Your task to perform on an android device: turn on wifi Image 0: 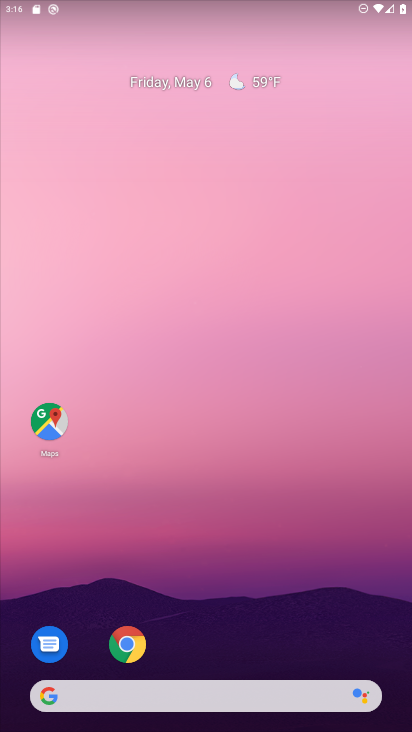
Step 0: drag from (219, 726) to (202, 25)
Your task to perform on an android device: turn on wifi Image 1: 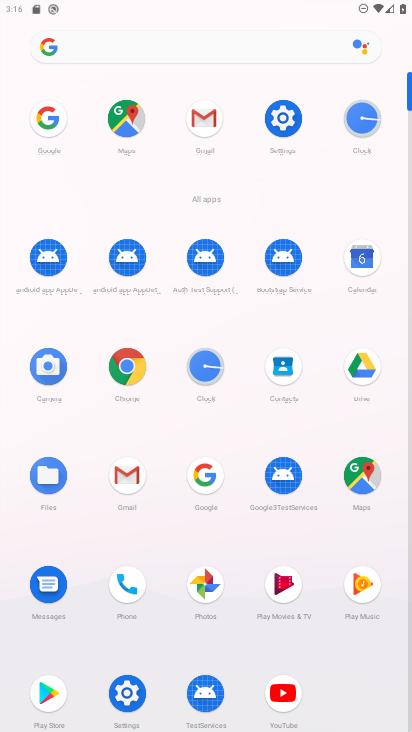
Step 1: click (286, 124)
Your task to perform on an android device: turn on wifi Image 2: 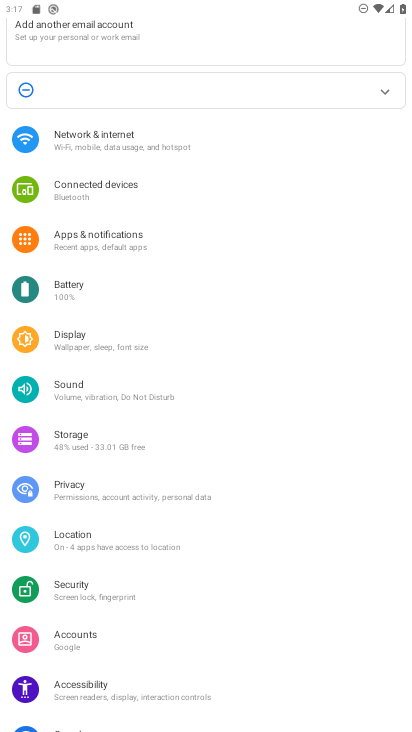
Step 2: click (108, 135)
Your task to perform on an android device: turn on wifi Image 3: 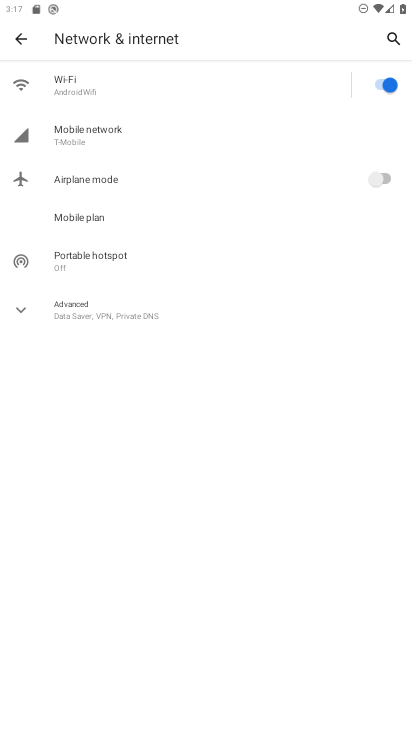
Step 3: task complete